Your task to perform on an android device: create a new album in the google photos Image 0: 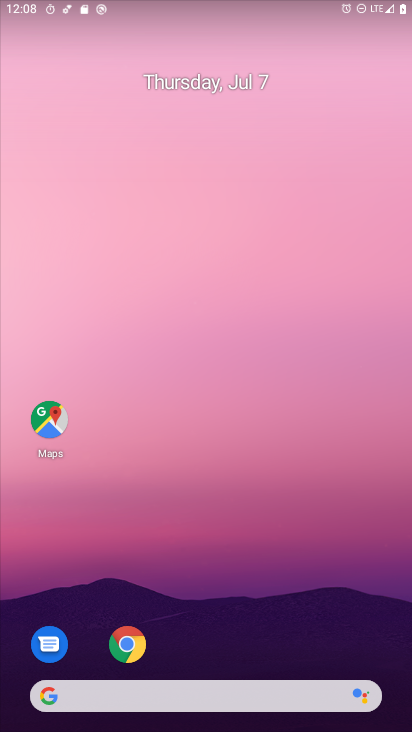
Step 0: drag from (218, 628) to (230, 129)
Your task to perform on an android device: create a new album in the google photos Image 1: 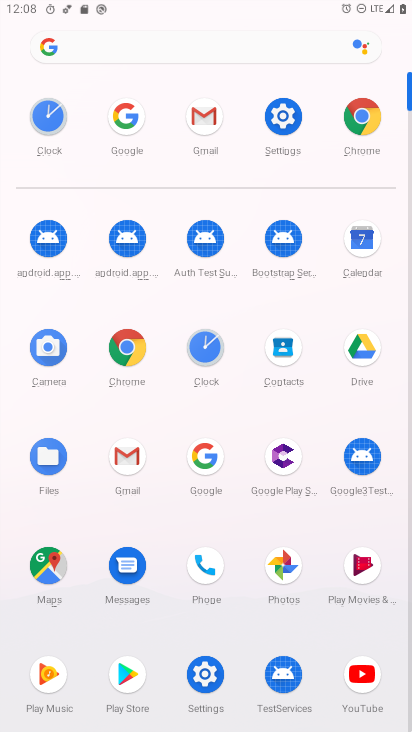
Step 1: click (281, 569)
Your task to perform on an android device: create a new album in the google photos Image 2: 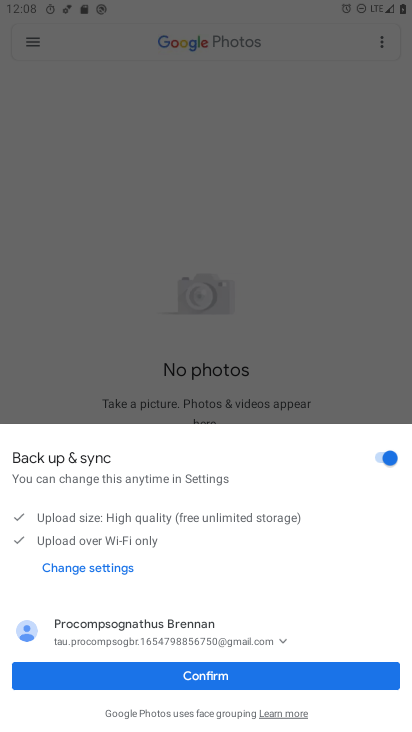
Step 2: click (206, 673)
Your task to perform on an android device: create a new album in the google photos Image 3: 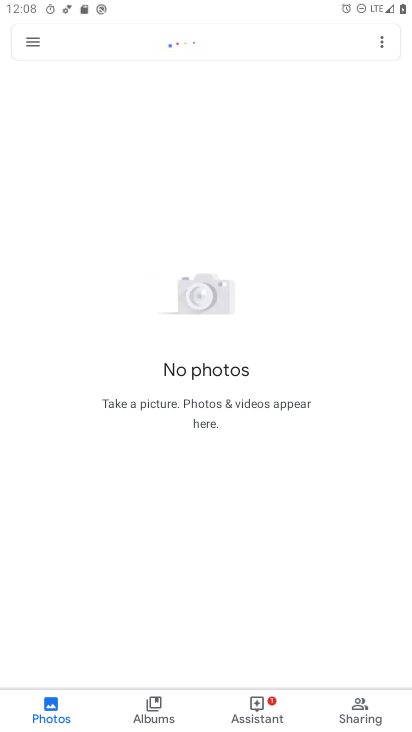
Step 3: click (155, 716)
Your task to perform on an android device: create a new album in the google photos Image 4: 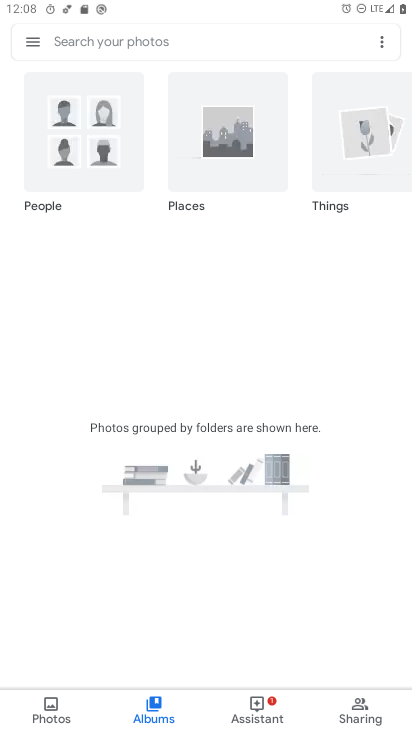
Step 4: click (154, 716)
Your task to perform on an android device: create a new album in the google photos Image 5: 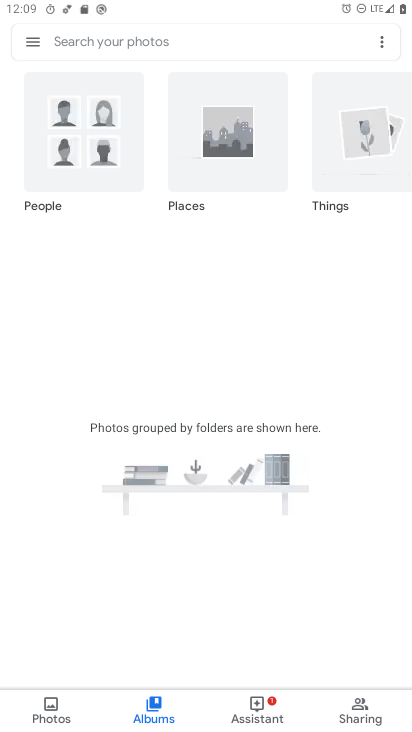
Step 5: task complete